Your task to perform on an android device: Is it going to rain today? Image 0: 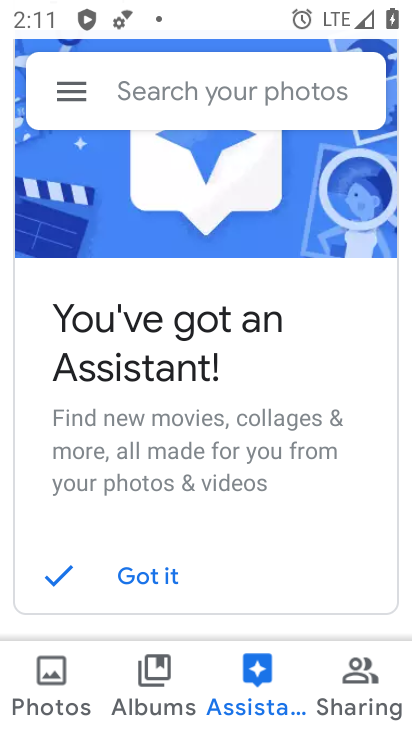
Step 0: press home button
Your task to perform on an android device: Is it going to rain today? Image 1: 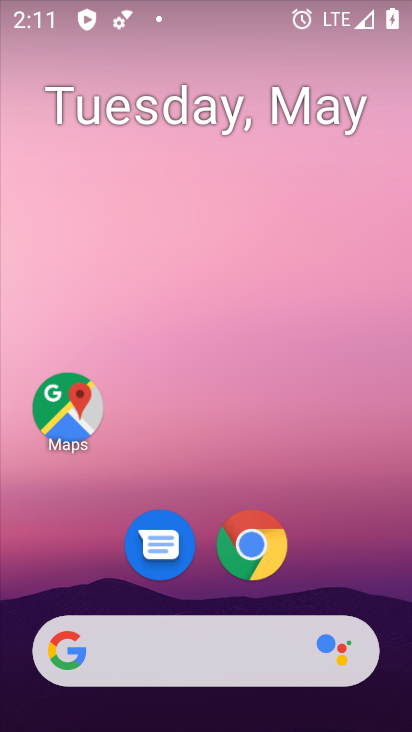
Step 1: drag from (320, 472) to (33, 275)
Your task to perform on an android device: Is it going to rain today? Image 2: 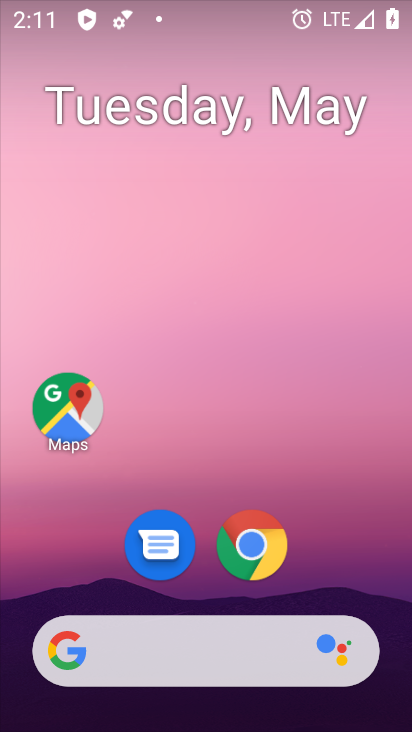
Step 2: drag from (15, 563) to (7, 60)
Your task to perform on an android device: Is it going to rain today? Image 3: 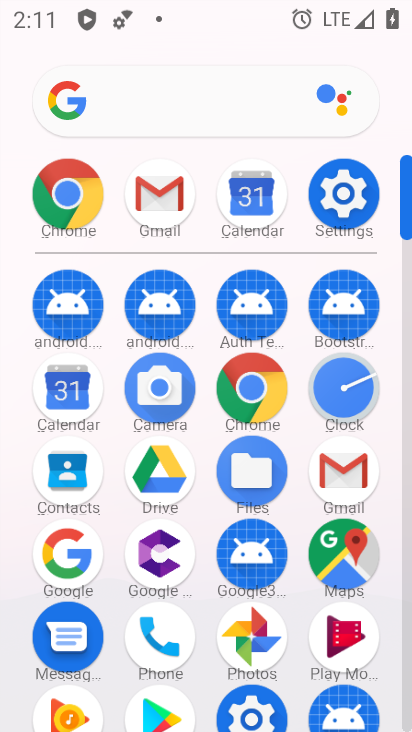
Step 3: click (254, 385)
Your task to perform on an android device: Is it going to rain today? Image 4: 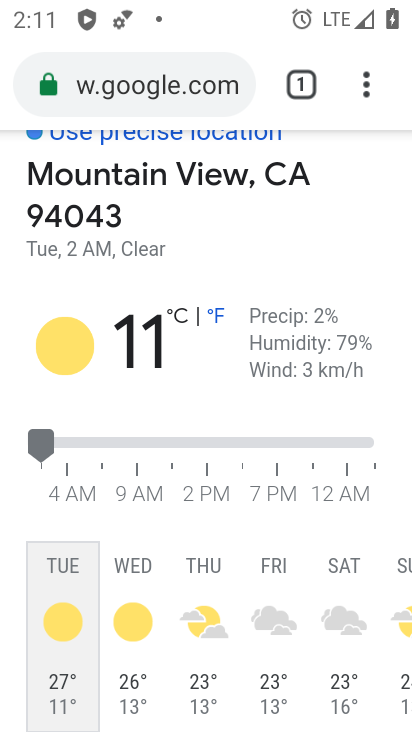
Step 4: click (177, 82)
Your task to perform on an android device: Is it going to rain today? Image 5: 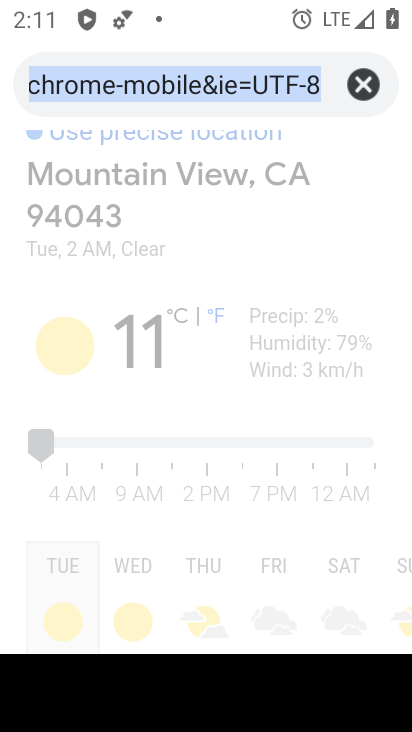
Step 5: click (357, 76)
Your task to perform on an android device: Is it going to rain today? Image 6: 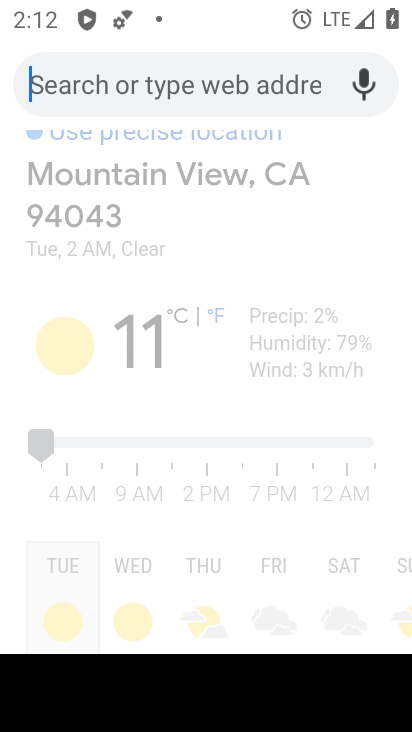
Step 6: type "Is it going to rain today?"
Your task to perform on an android device: Is it going to rain today? Image 7: 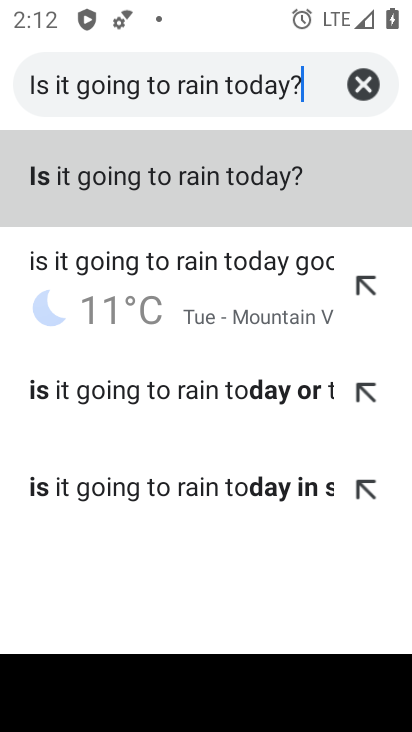
Step 7: click (211, 156)
Your task to perform on an android device: Is it going to rain today? Image 8: 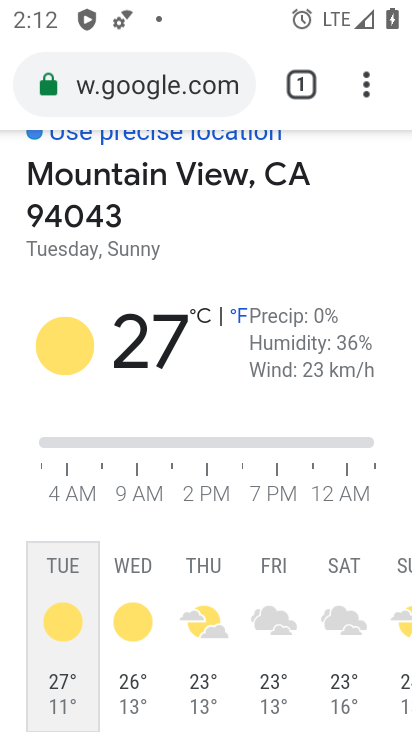
Step 8: task complete